Your task to perform on an android device: toggle notification dots Image 0: 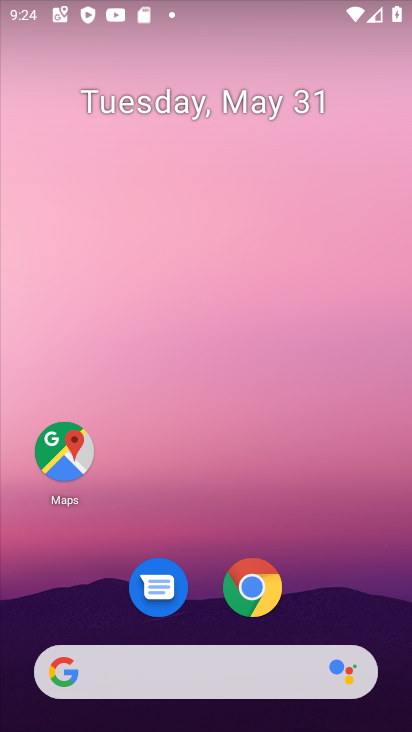
Step 0: drag from (299, 591) to (287, 46)
Your task to perform on an android device: toggle notification dots Image 1: 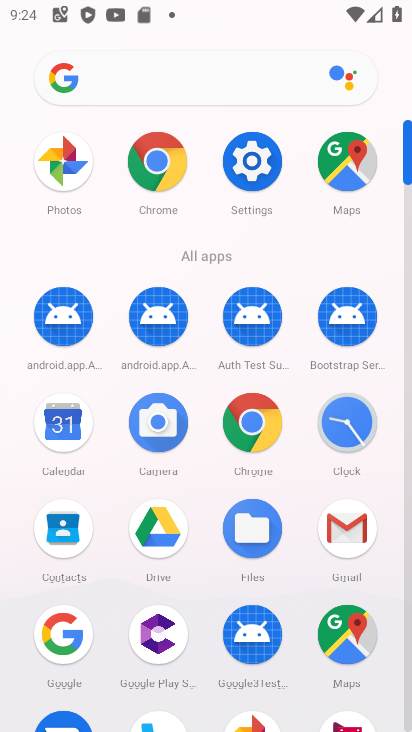
Step 1: click (251, 157)
Your task to perform on an android device: toggle notification dots Image 2: 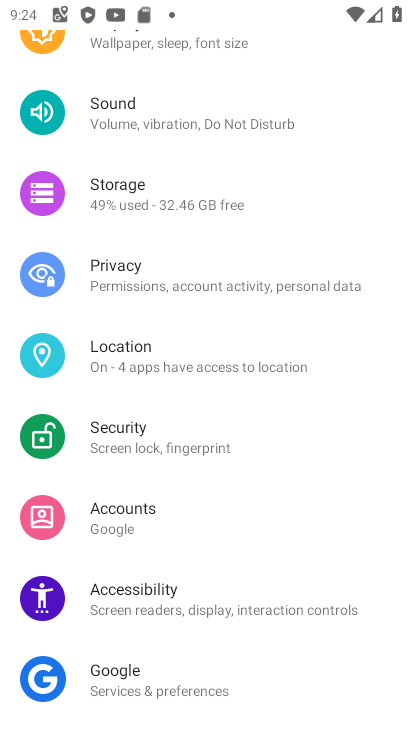
Step 2: drag from (230, 147) to (165, 489)
Your task to perform on an android device: toggle notification dots Image 3: 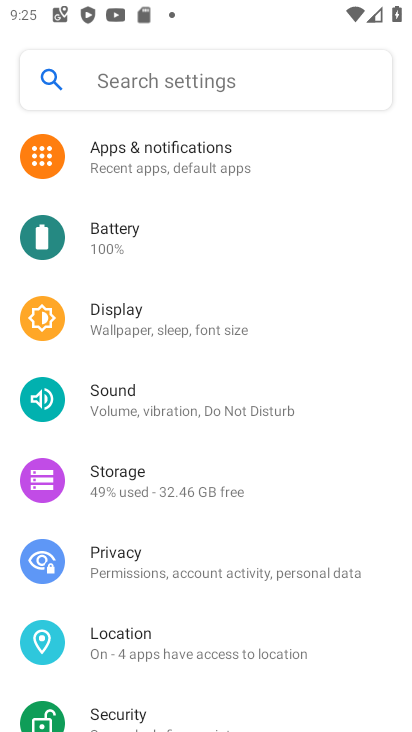
Step 3: click (150, 146)
Your task to perform on an android device: toggle notification dots Image 4: 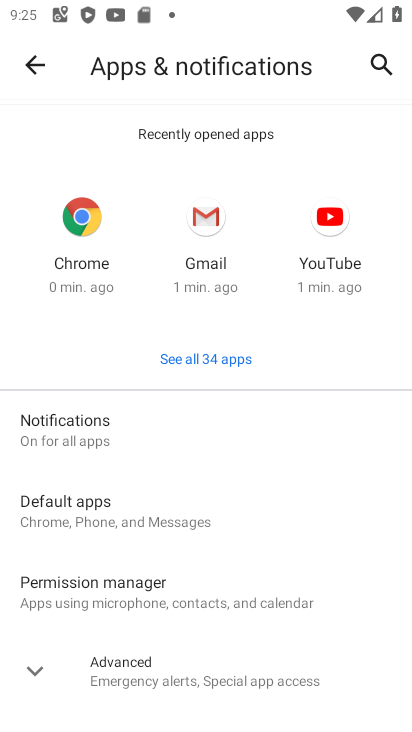
Step 4: click (58, 421)
Your task to perform on an android device: toggle notification dots Image 5: 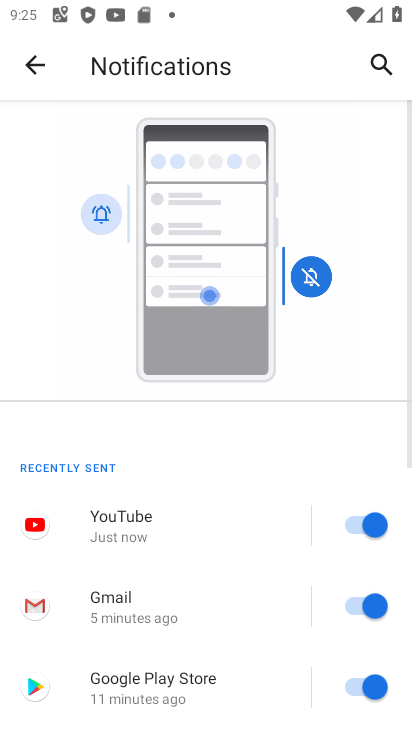
Step 5: drag from (264, 618) to (352, 204)
Your task to perform on an android device: toggle notification dots Image 6: 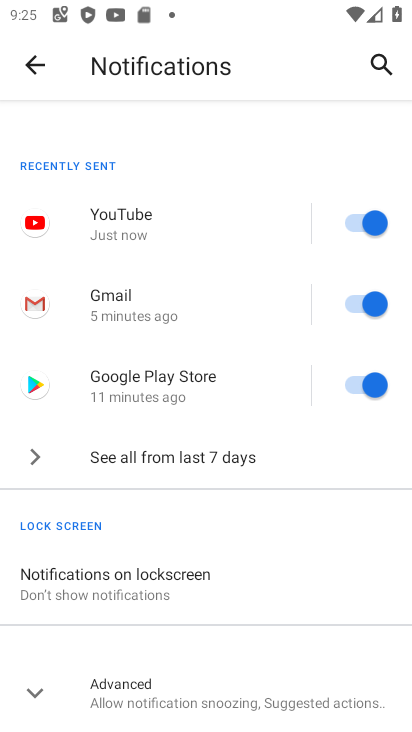
Step 6: drag from (259, 614) to (283, 356)
Your task to perform on an android device: toggle notification dots Image 7: 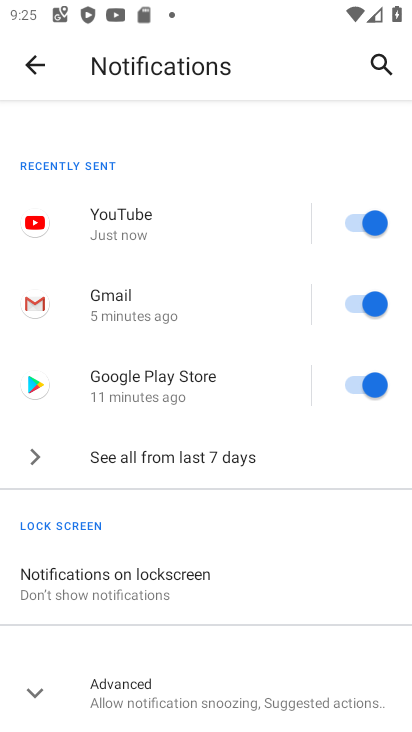
Step 7: click (141, 691)
Your task to perform on an android device: toggle notification dots Image 8: 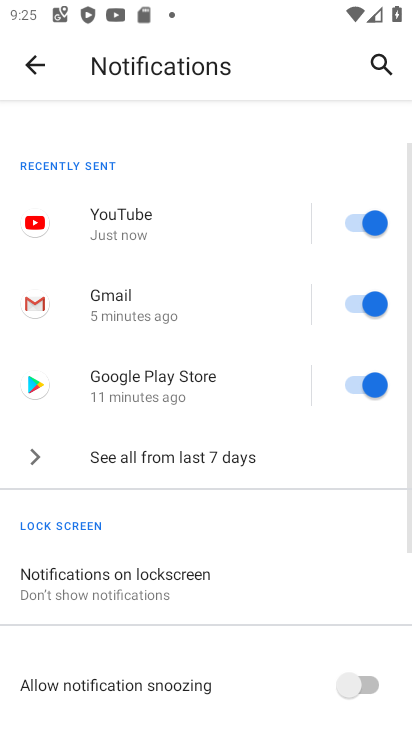
Step 8: drag from (245, 596) to (315, 208)
Your task to perform on an android device: toggle notification dots Image 9: 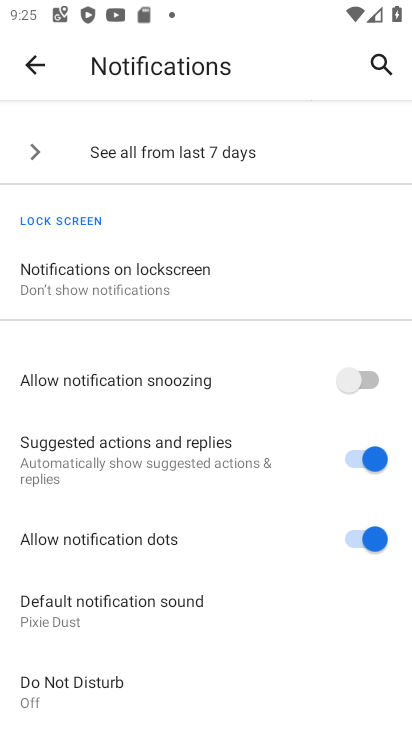
Step 9: click (381, 528)
Your task to perform on an android device: toggle notification dots Image 10: 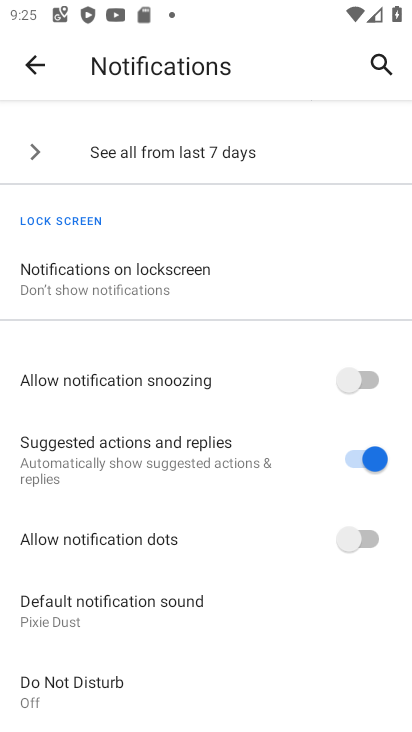
Step 10: task complete